Your task to perform on an android device: clear history in the chrome app Image 0: 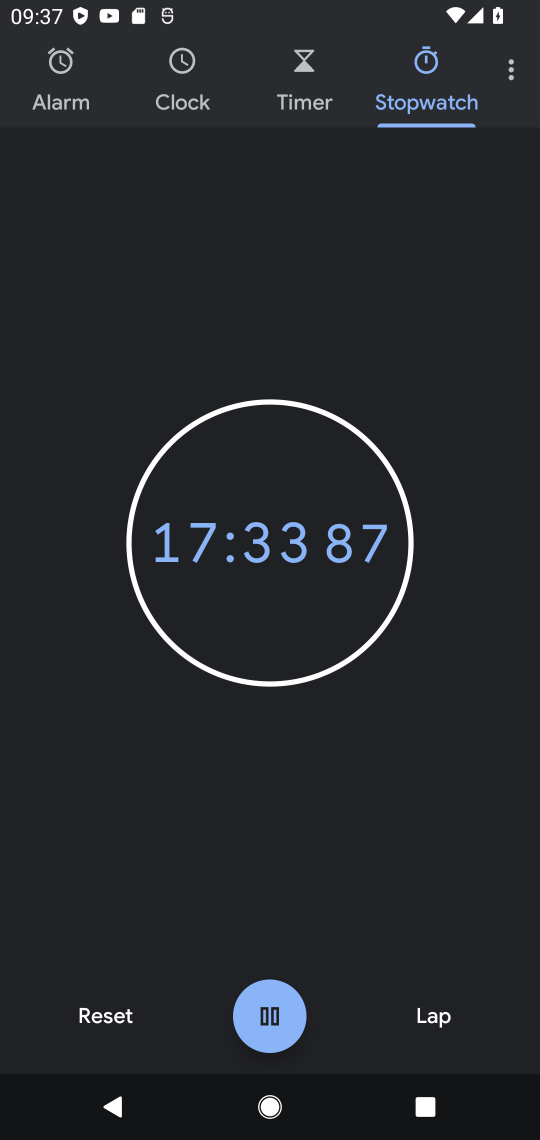
Step 0: press home button
Your task to perform on an android device: clear history in the chrome app Image 1: 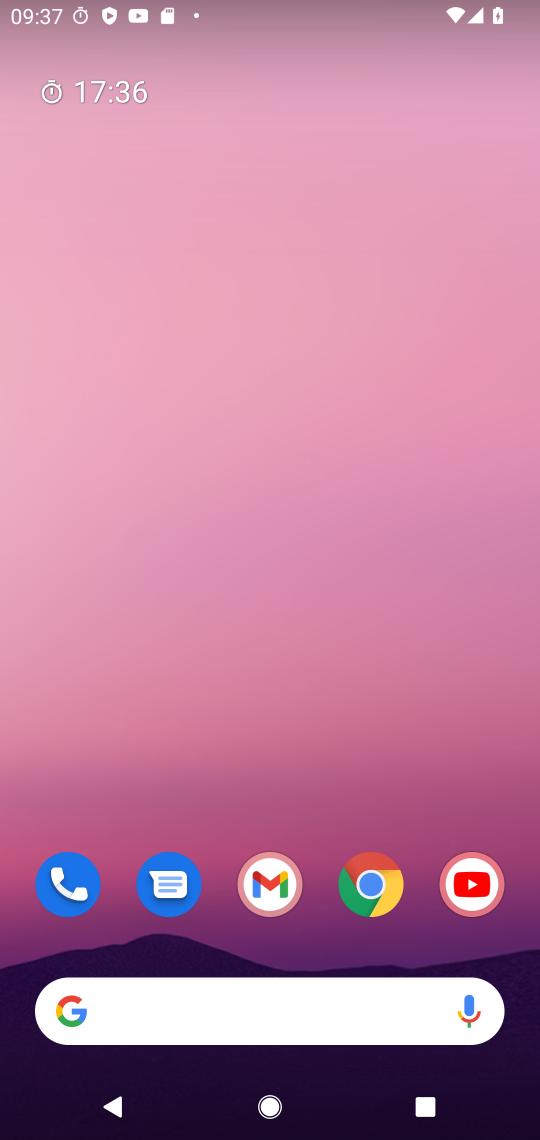
Step 1: click (351, 884)
Your task to perform on an android device: clear history in the chrome app Image 2: 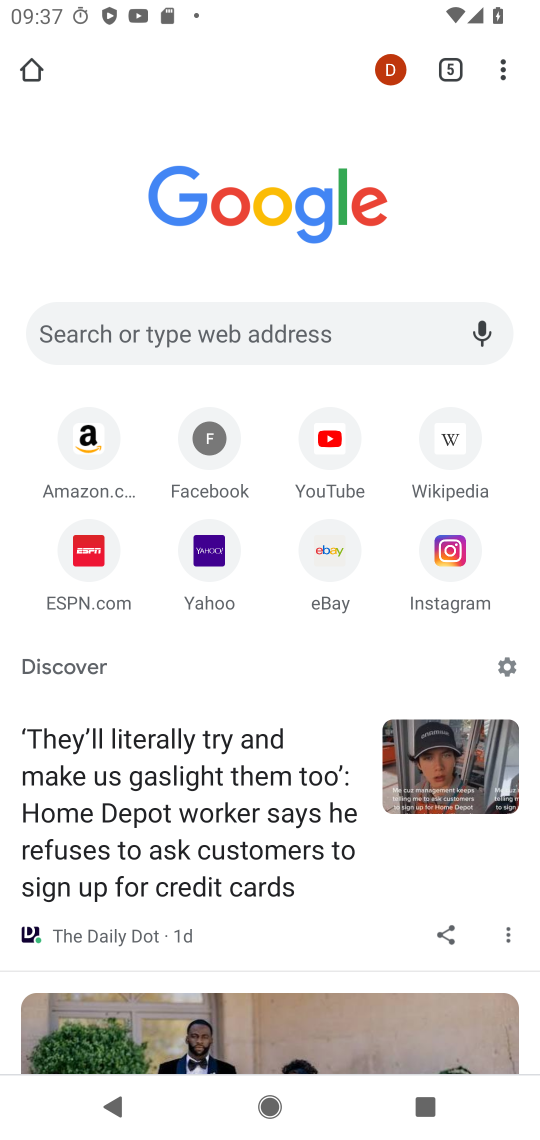
Step 2: click (504, 75)
Your task to perform on an android device: clear history in the chrome app Image 3: 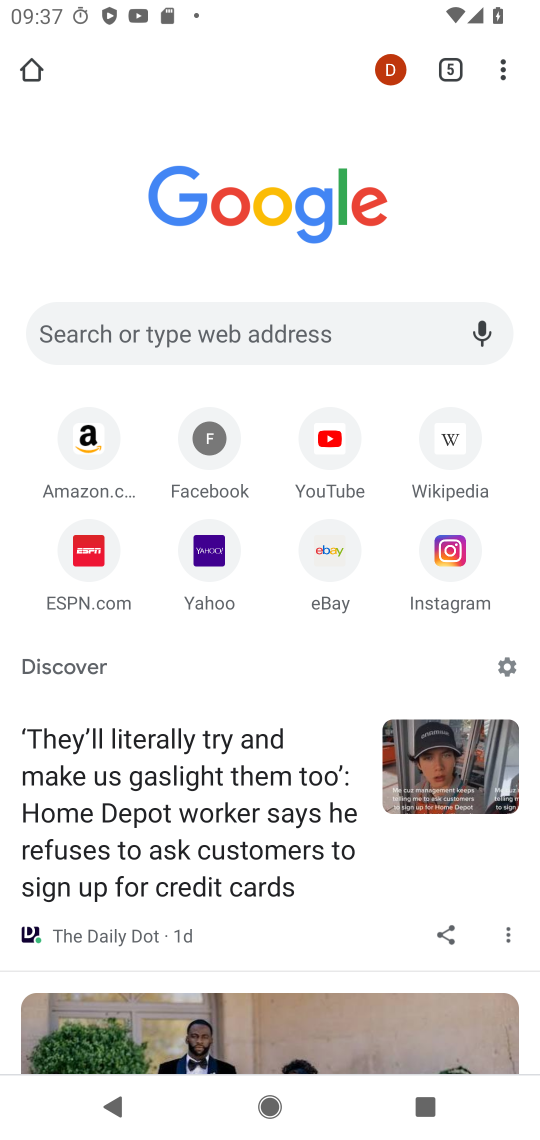
Step 3: drag from (503, 77) to (336, 360)
Your task to perform on an android device: clear history in the chrome app Image 4: 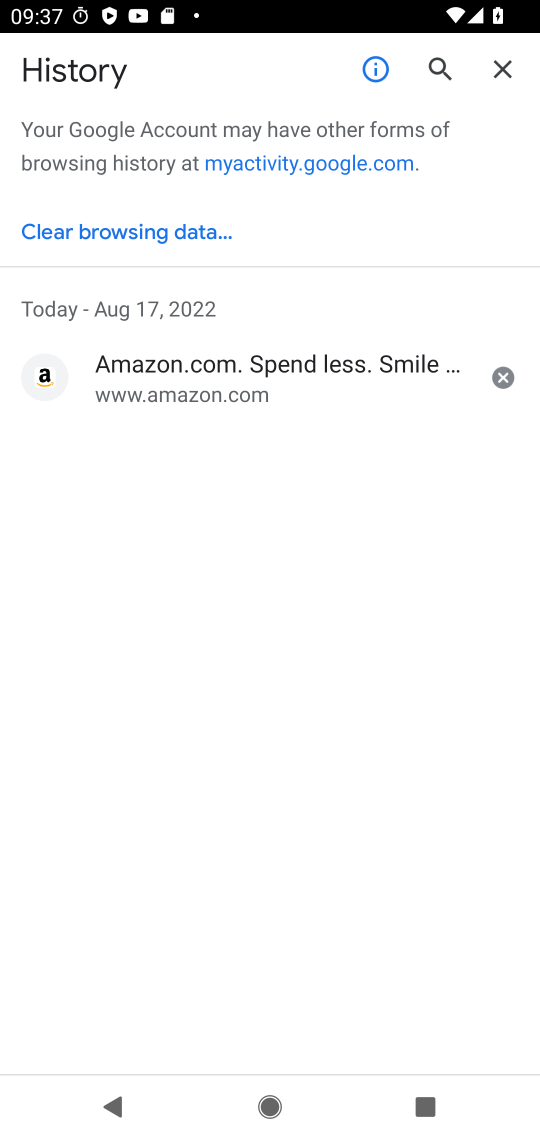
Step 4: click (139, 225)
Your task to perform on an android device: clear history in the chrome app Image 5: 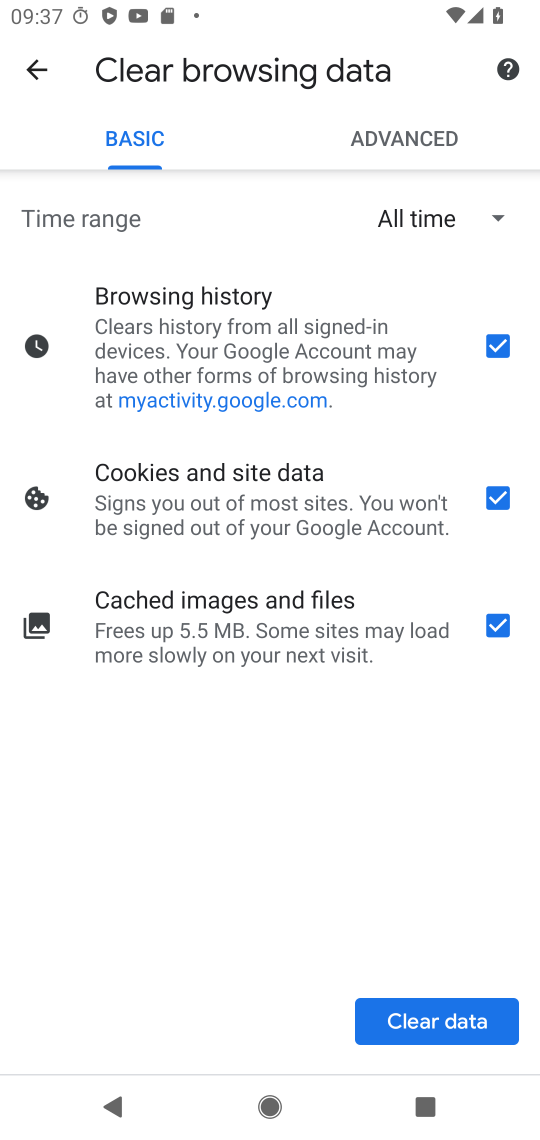
Step 5: click (432, 1007)
Your task to perform on an android device: clear history in the chrome app Image 6: 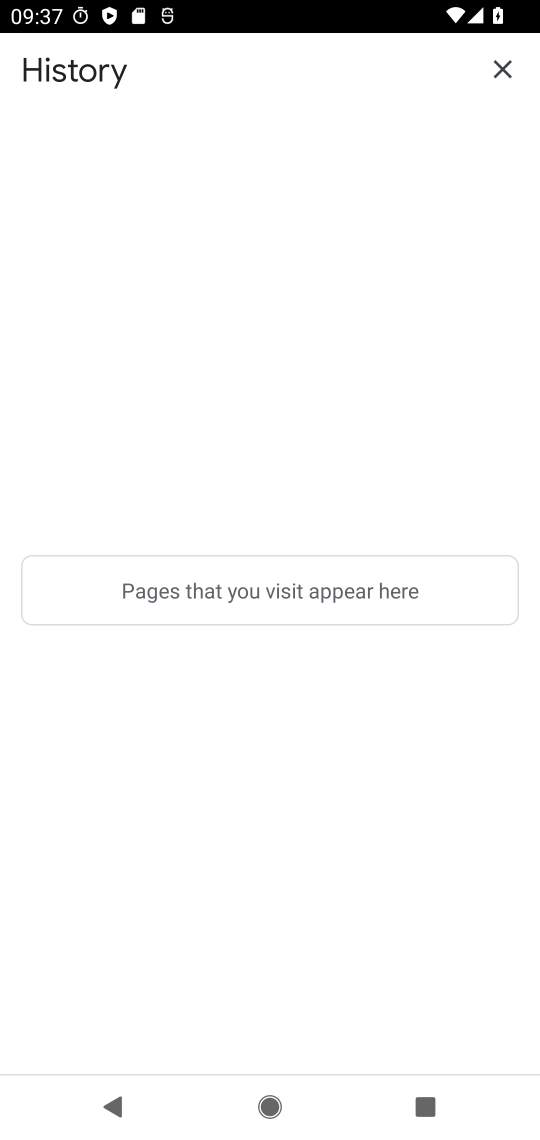
Step 6: task complete